Your task to perform on an android device: turn on showing notifications on the lock screen Image 0: 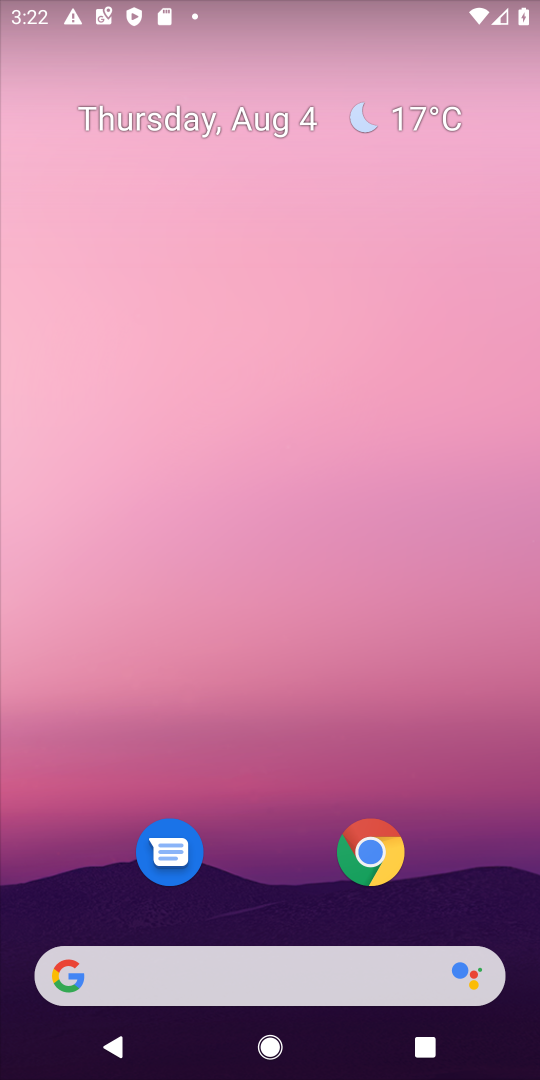
Step 0: drag from (281, 680) to (391, 84)
Your task to perform on an android device: turn on showing notifications on the lock screen Image 1: 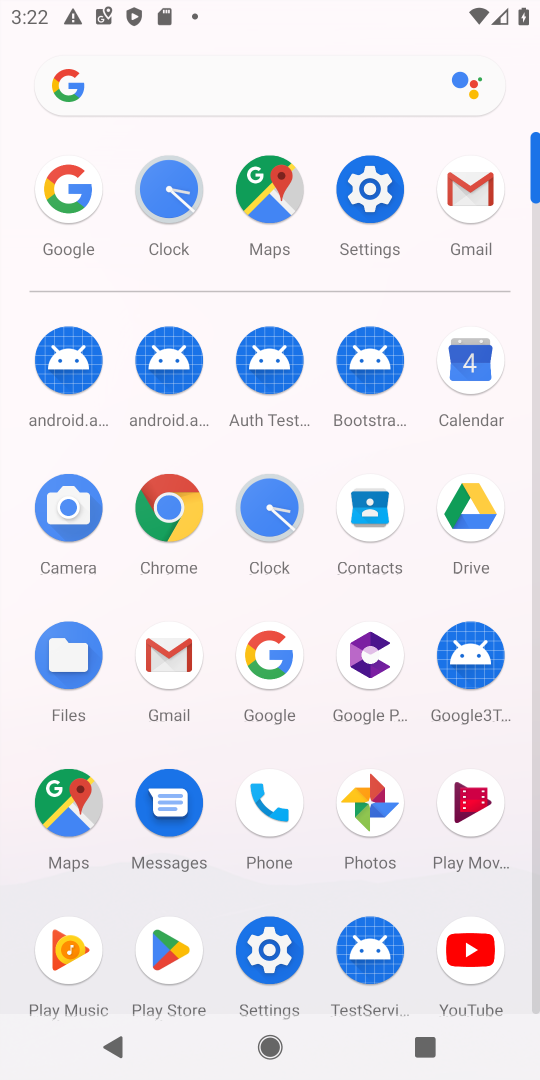
Step 1: click (389, 181)
Your task to perform on an android device: turn on showing notifications on the lock screen Image 2: 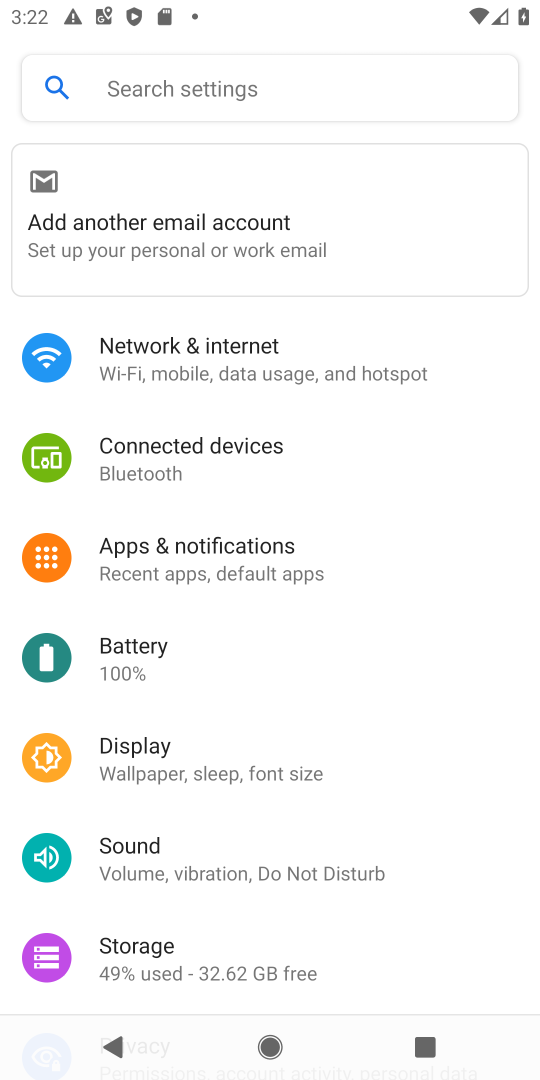
Step 2: click (185, 567)
Your task to perform on an android device: turn on showing notifications on the lock screen Image 3: 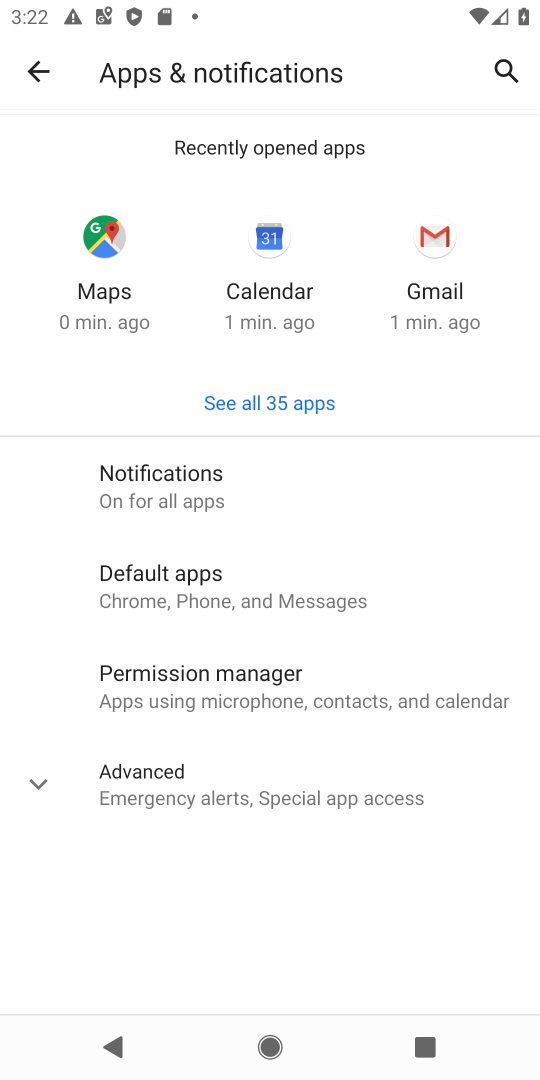
Step 3: click (205, 464)
Your task to perform on an android device: turn on showing notifications on the lock screen Image 4: 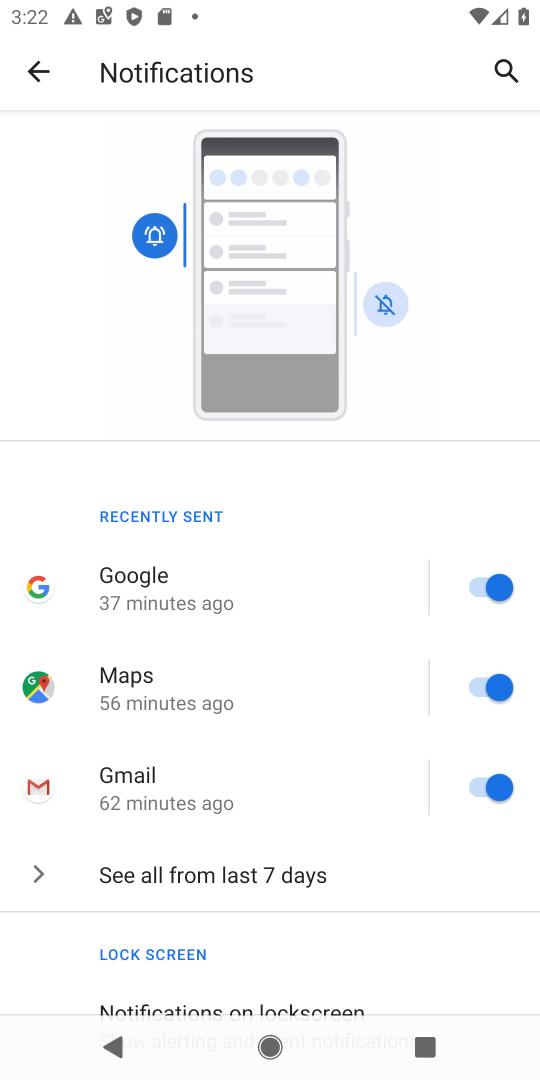
Step 4: drag from (183, 966) to (419, 246)
Your task to perform on an android device: turn on showing notifications on the lock screen Image 5: 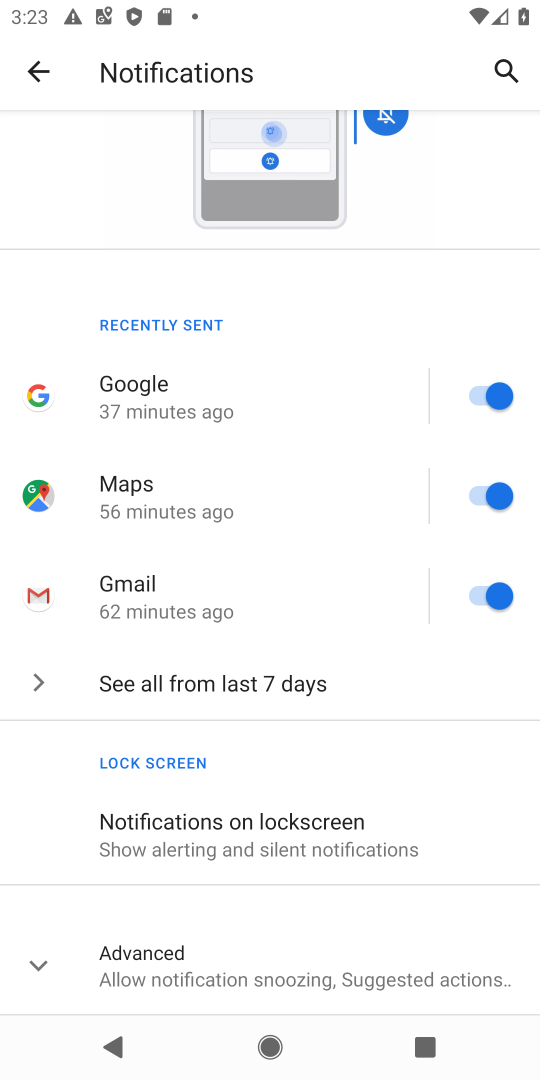
Step 5: click (247, 823)
Your task to perform on an android device: turn on showing notifications on the lock screen Image 6: 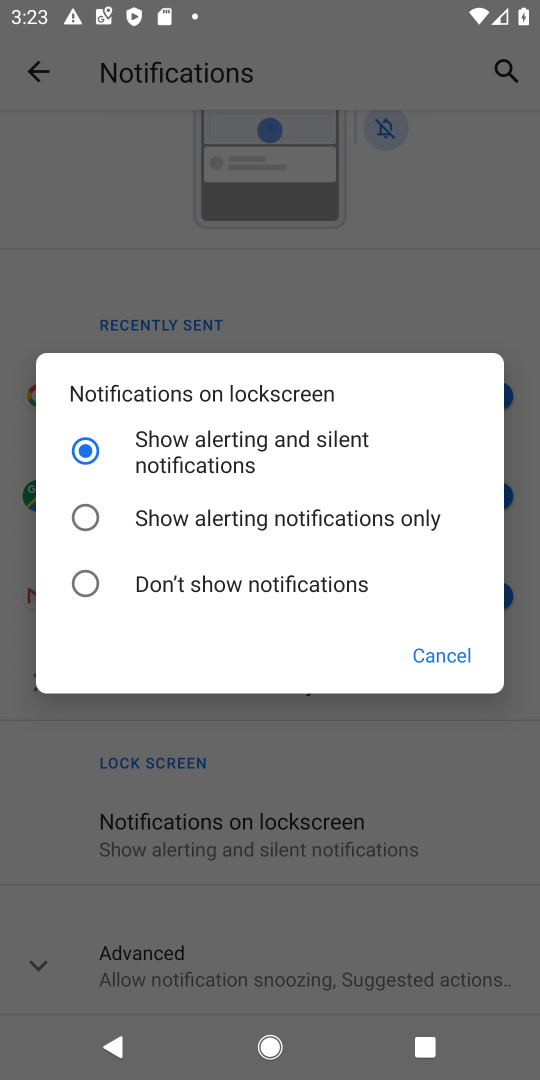
Step 6: task complete